Your task to perform on an android device: Go to battery settings Image 0: 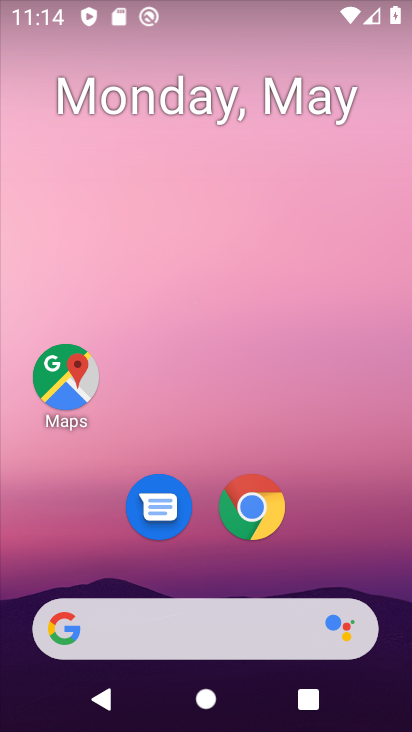
Step 0: drag from (313, 467) to (311, 199)
Your task to perform on an android device: Go to battery settings Image 1: 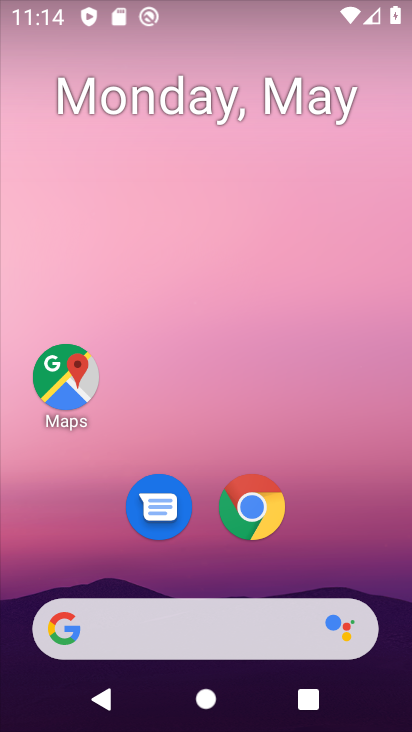
Step 1: drag from (341, 535) to (304, 152)
Your task to perform on an android device: Go to battery settings Image 2: 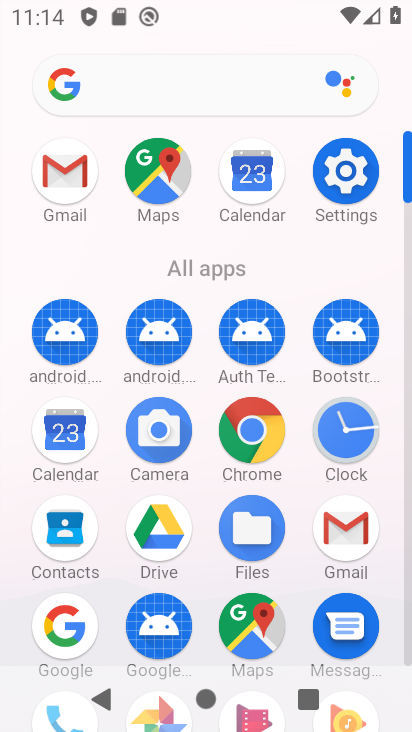
Step 2: click (343, 168)
Your task to perform on an android device: Go to battery settings Image 3: 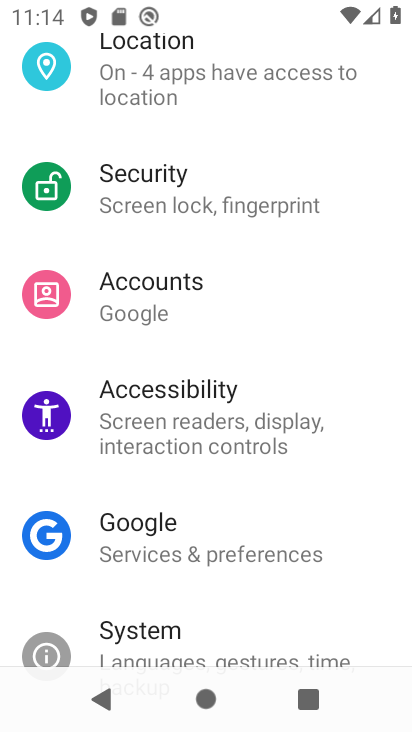
Step 3: drag from (209, 91) to (180, 563)
Your task to perform on an android device: Go to battery settings Image 4: 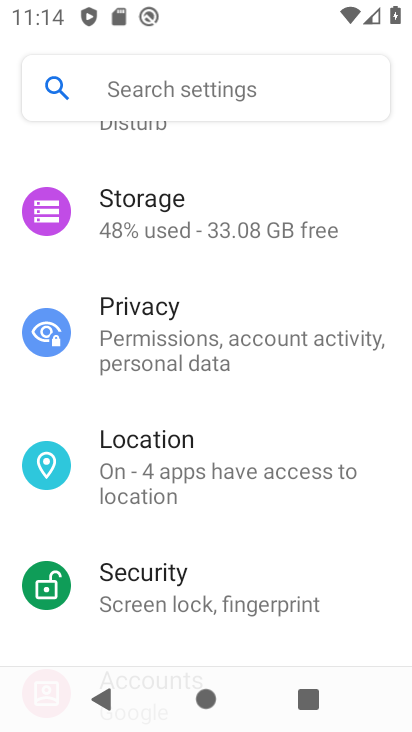
Step 4: drag from (236, 109) to (265, 466)
Your task to perform on an android device: Go to battery settings Image 5: 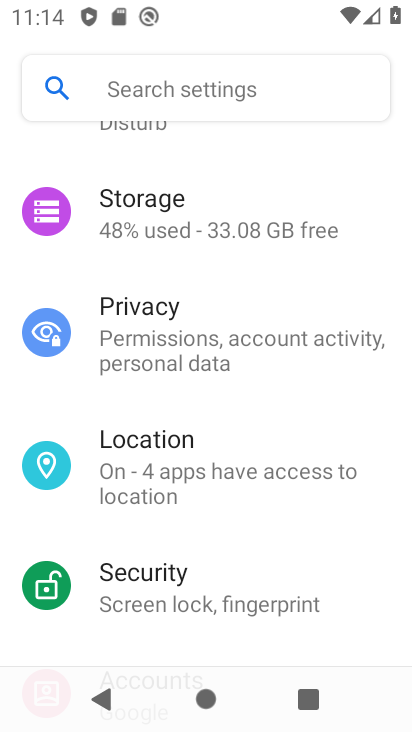
Step 5: drag from (211, 189) to (248, 547)
Your task to perform on an android device: Go to battery settings Image 6: 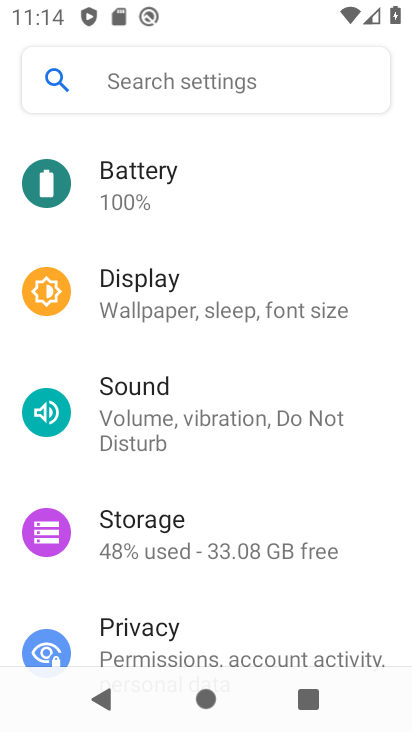
Step 6: click (175, 180)
Your task to perform on an android device: Go to battery settings Image 7: 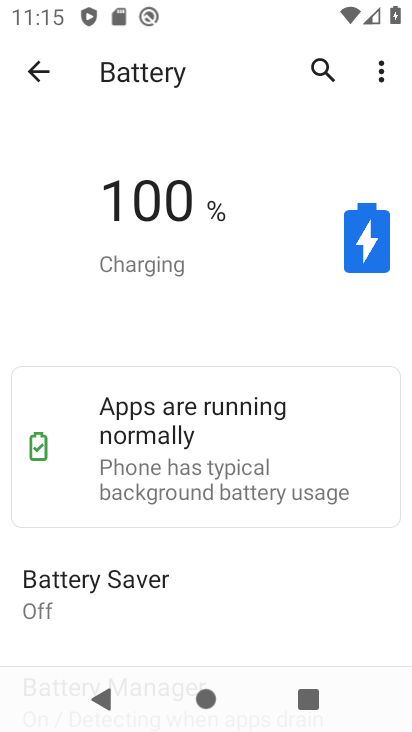
Step 7: task complete